Your task to perform on an android device: Open notification settings Image 0: 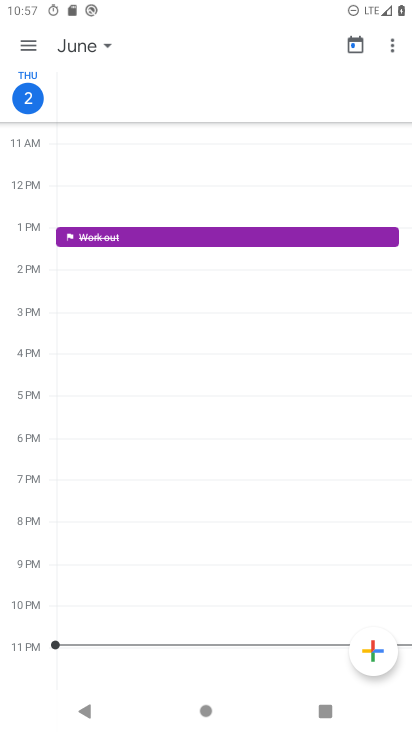
Step 0: press home button
Your task to perform on an android device: Open notification settings Image 1: 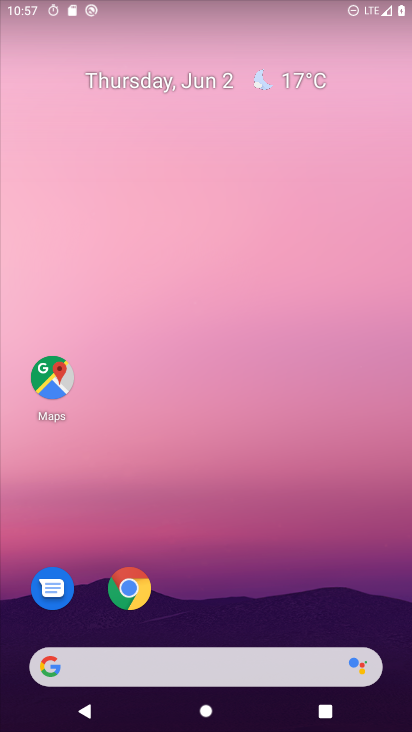
Step 1: drag from (228, 542) to (277, 198)
Your task to perform on an android device: Open notification settings Image 2: 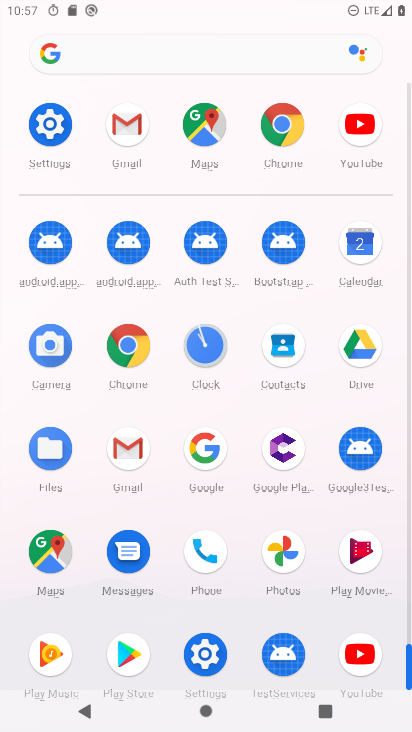
Step 2: click (63, 140)
Your task to perform on an android device: Open notification settings Image 3: 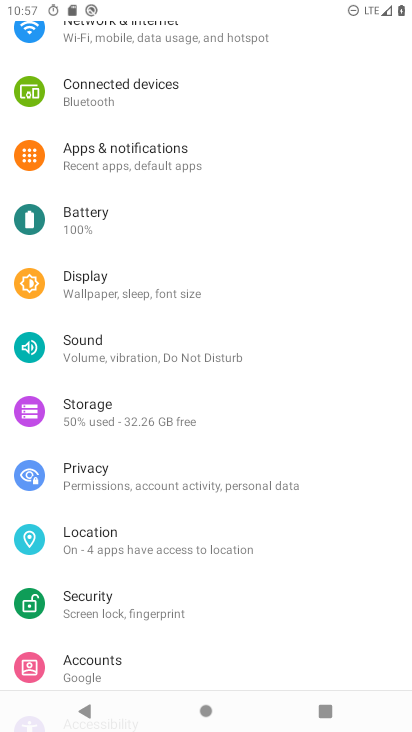
Step 3: drag from (180, 191) to (182, 451)
Your task to perform on an android device: Open notification settings Image 4: 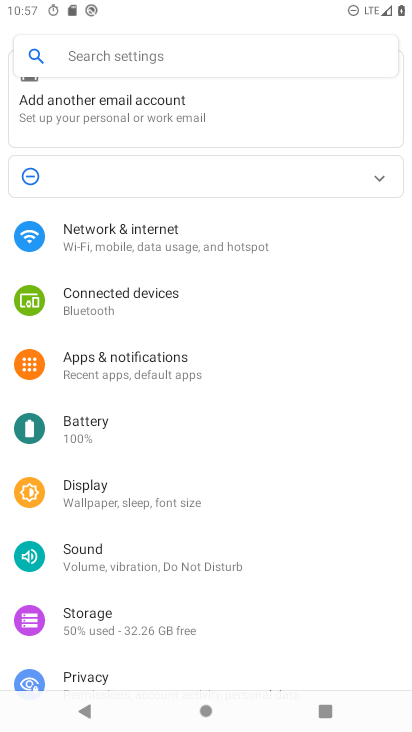
Step 4: click (189, 360)
Your task to perform on an android device: Open notification settings Image 5: 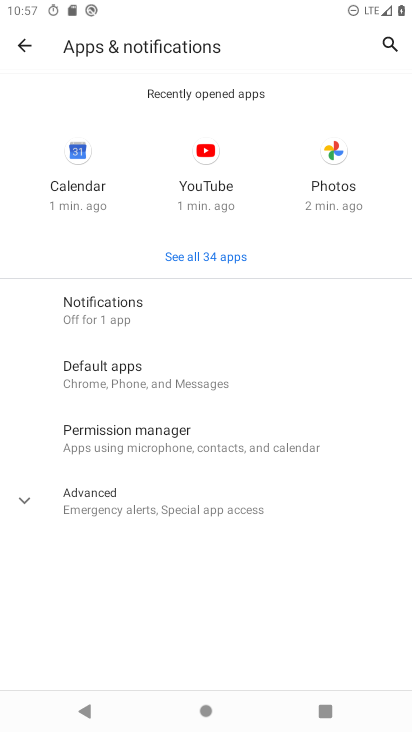
Step 5: click (171, 320)
Your task to perform on an android device: Open notification settings Image 6: 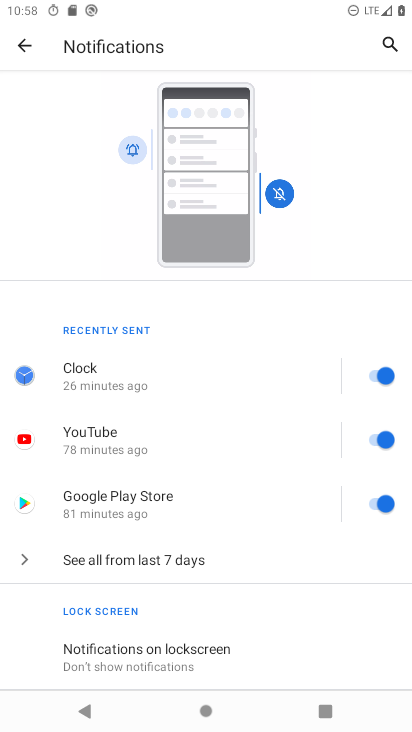
Step 6: task complete